Your task to perform on an android device: What is the news today? Image 0: 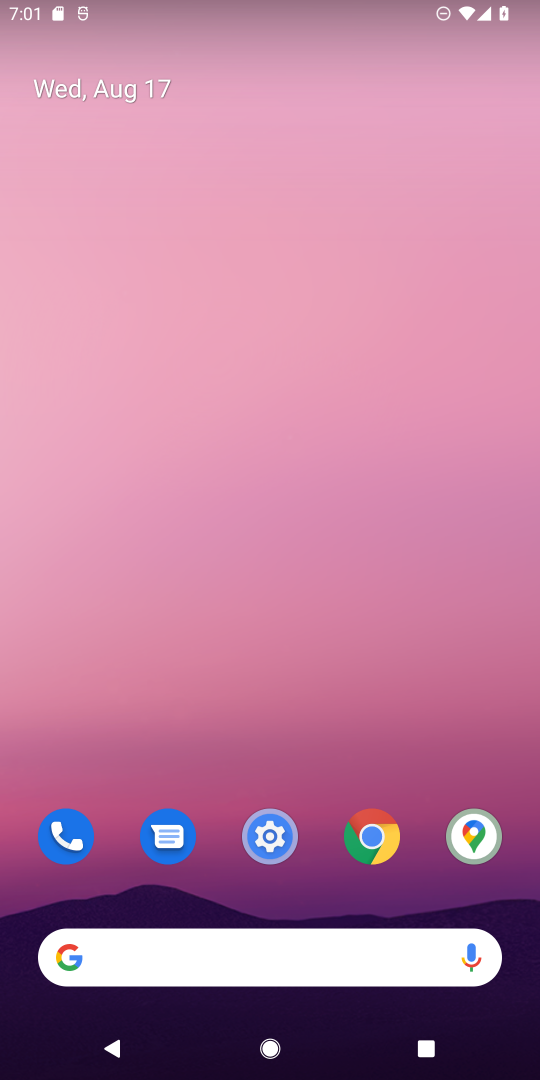
Step 0: drag from (358, 869) to (316, 165)
Your task to perform on an android device: What is the news today? Image 1: 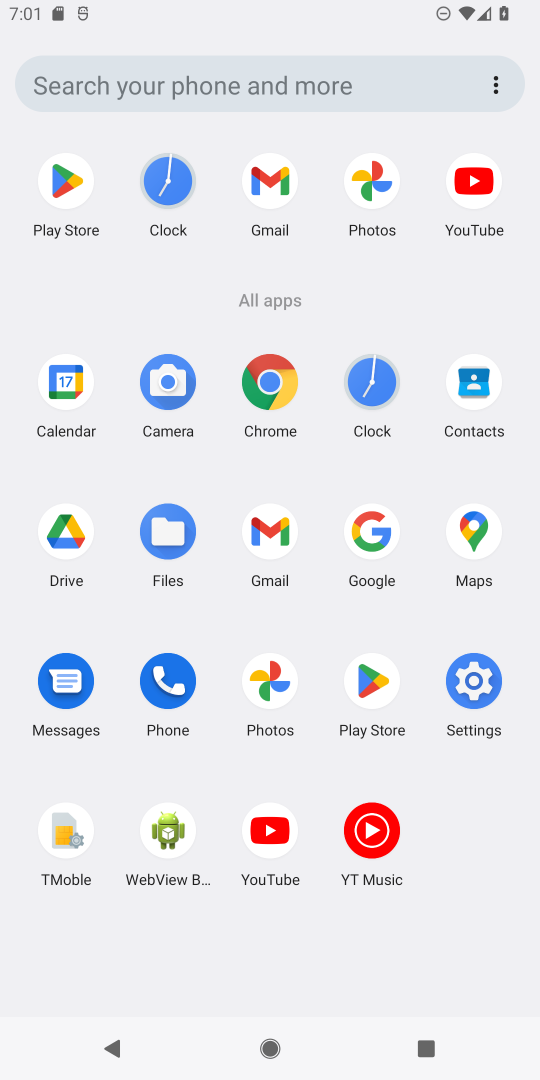
Step 1: click (264, 392)
Your task to perform on an android device: What is the news today? Image 2: 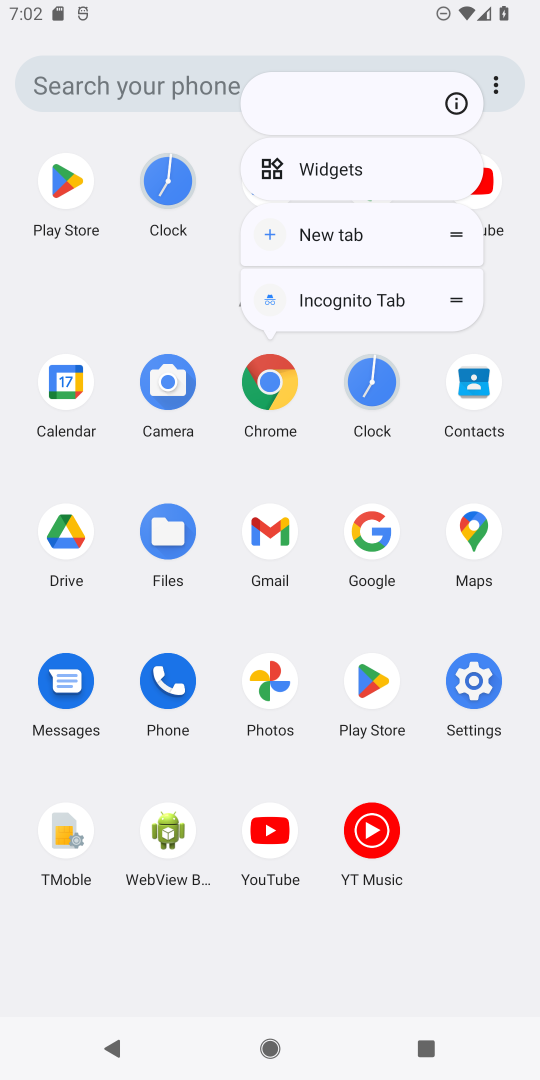
Step 2: click (277, 392)
Your task to perform on an android device: What is the news today? Image 3: 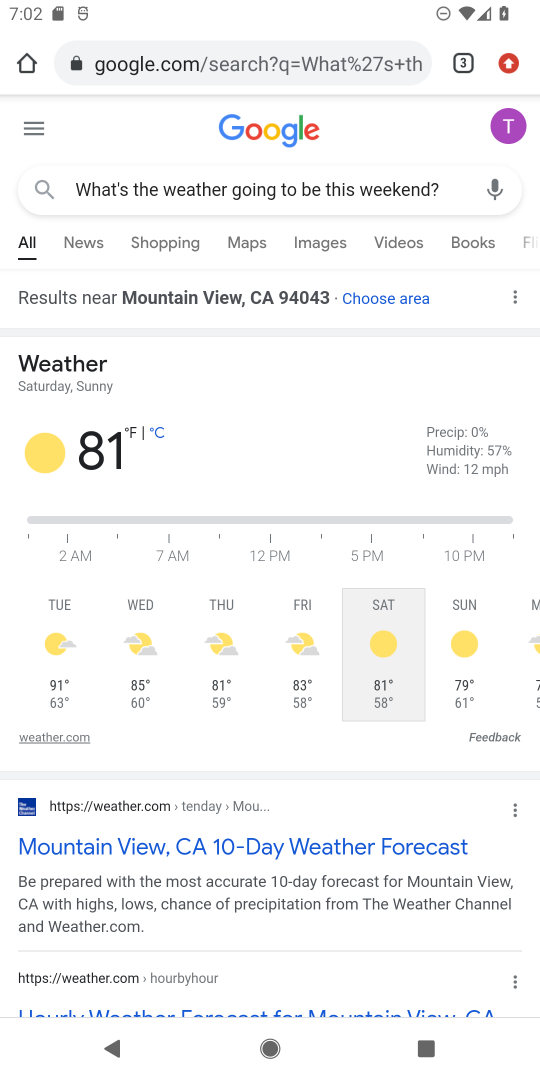
Step 3: click (506, 62)
Your task to perform on an android device: What is the news today? Image 4: 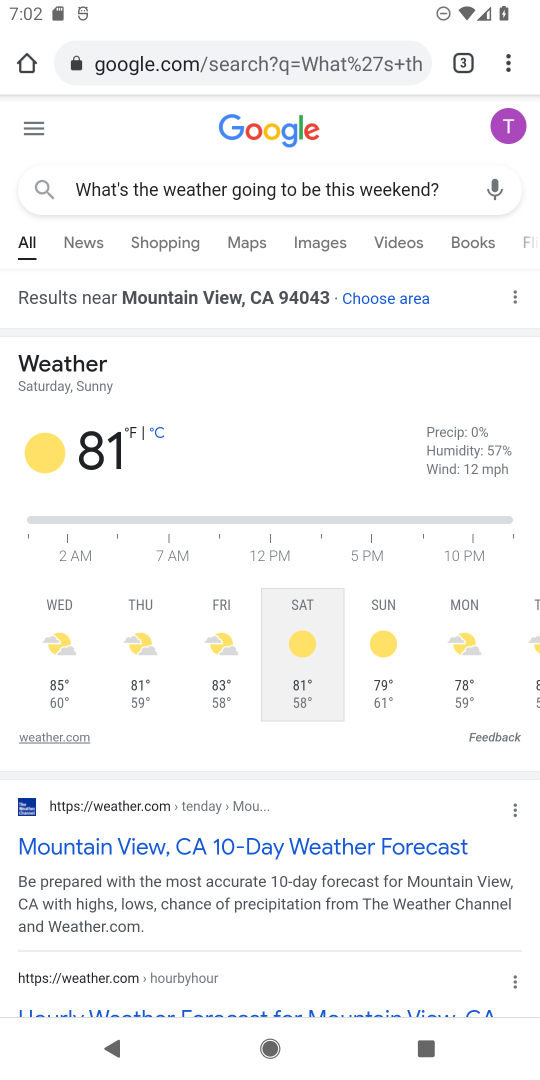
Step 4: click (508, 62)
Your task to perform on an android device: What is the news today? Image 5: 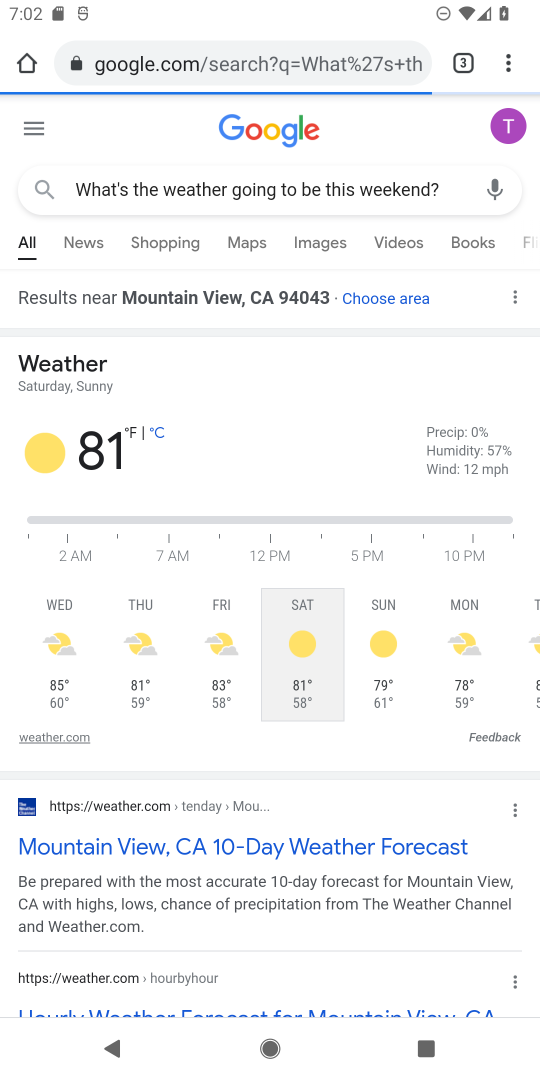
Step 5: click (508, 57)
Your task to perform on an android device: What is the news today? Image 6: 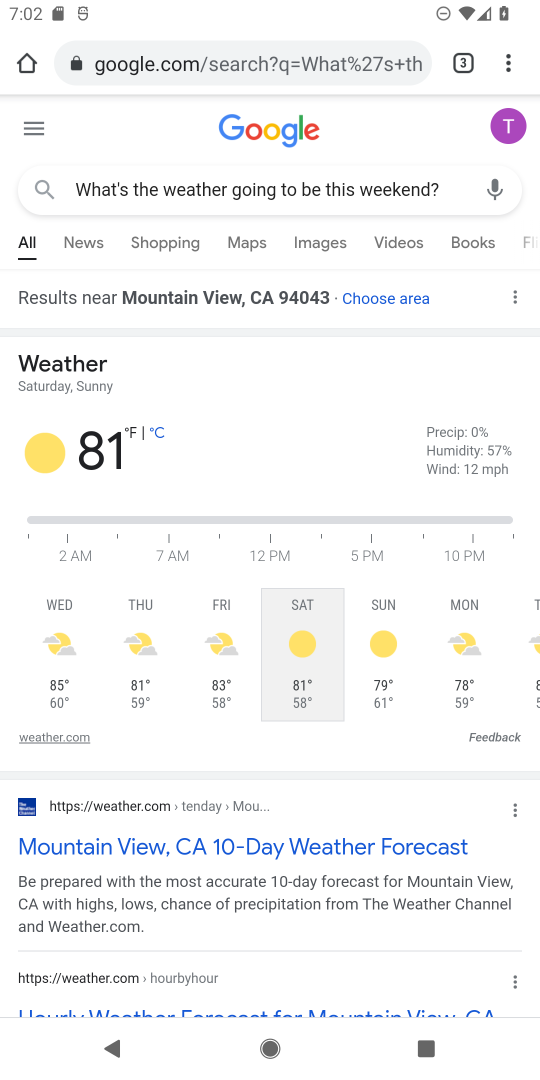
Step 6: click (501, 57)
Your task to perform on an android device: What is the news today? Image 7: 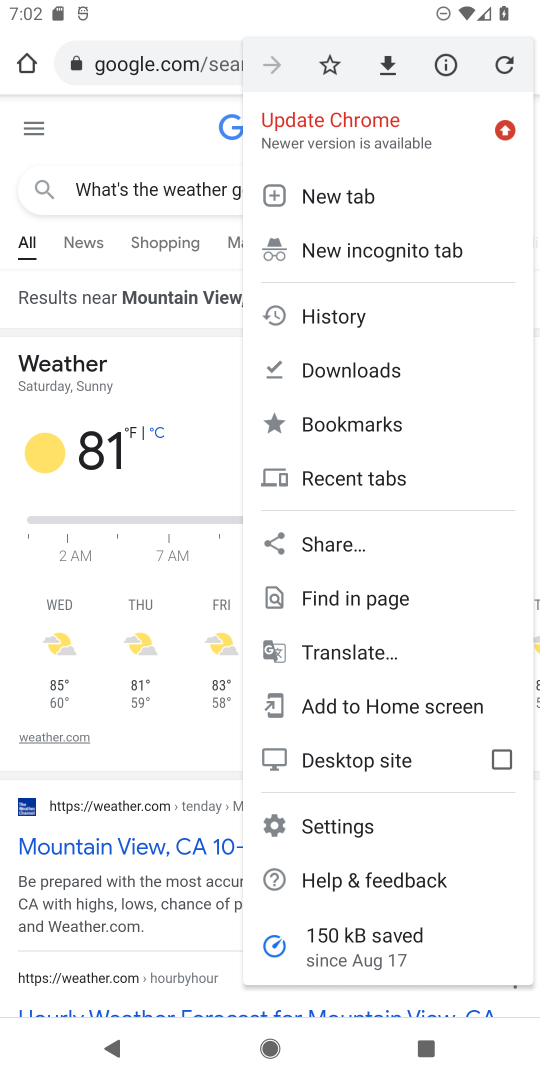
Step 7: click (373, 180)
Your task to perform on an android device: What is the news today? Image 8: 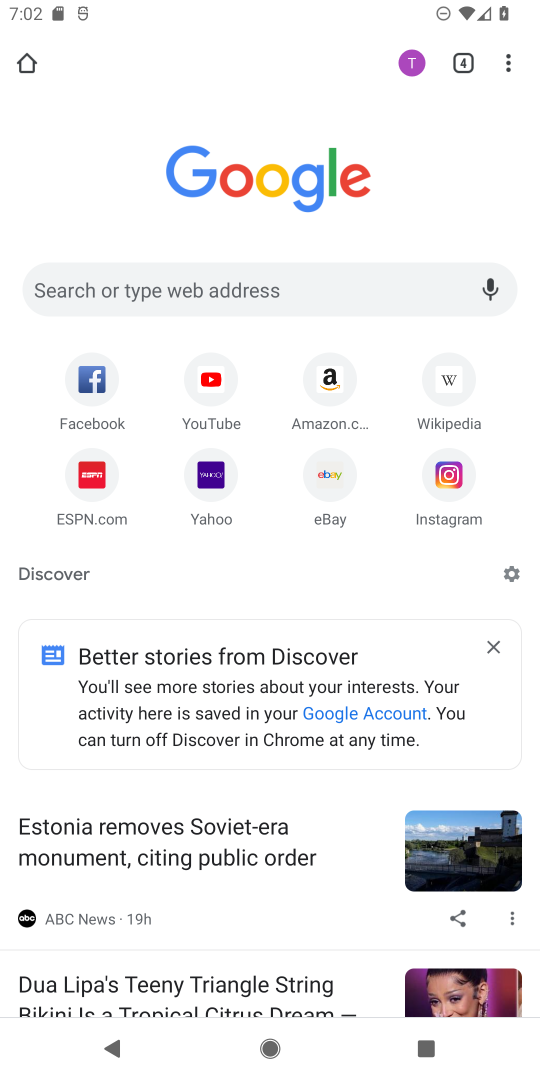
Step 8: click (294, 271)
Your task to perform on an android device: What is the news today? Image 9: 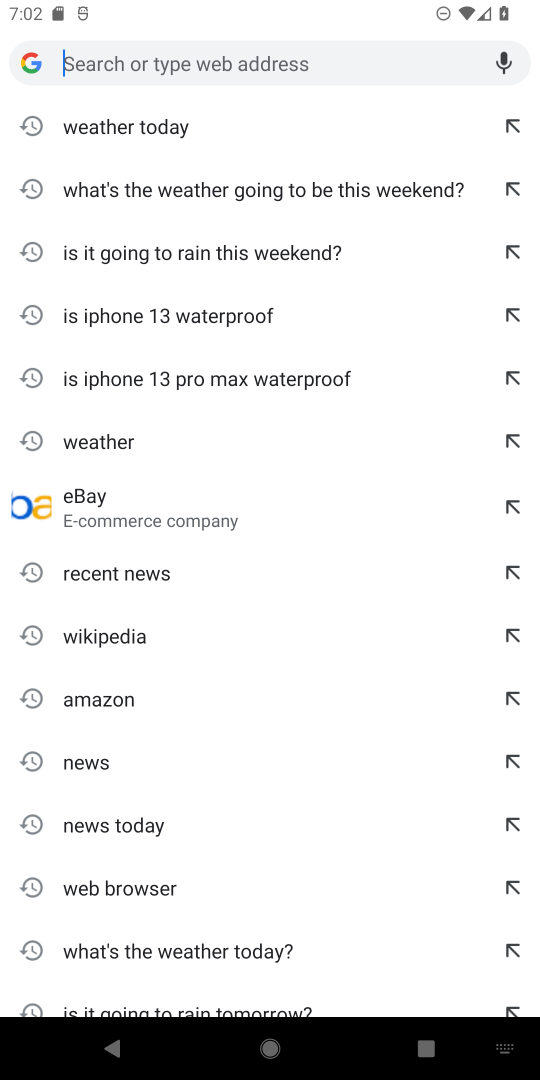
Step 9: type "What is the news today "
Your task to perform on an android device: What is the news today? Image 10: 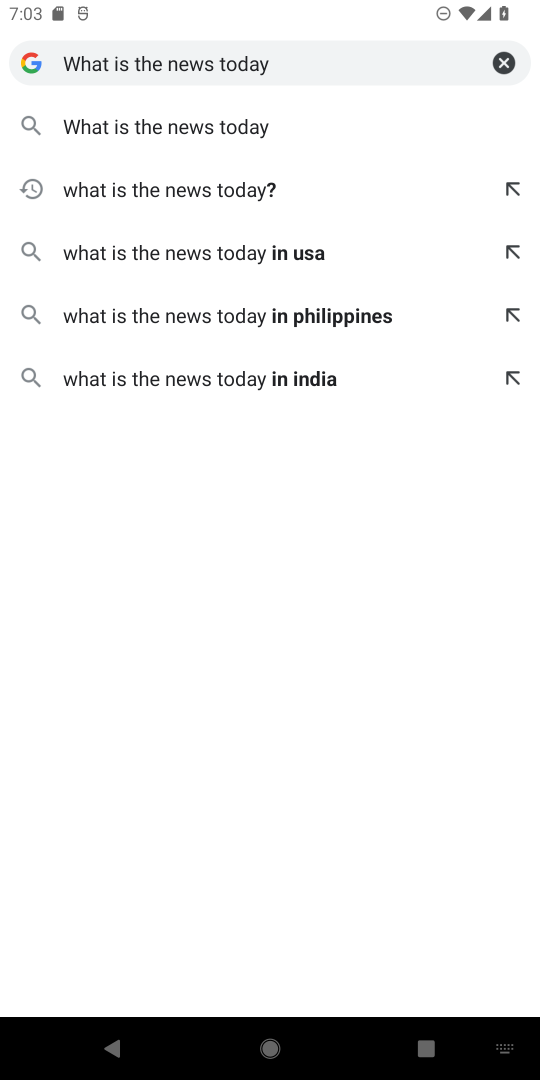
Step 10: click (183, 121)
Your task to perform on an android device: What is the news today? Image 11: 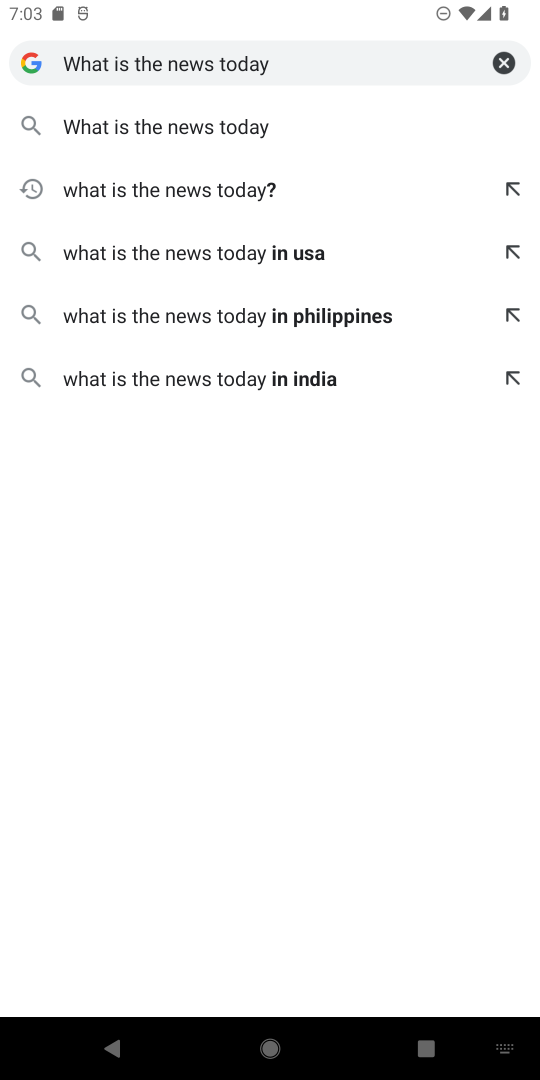
Step 11: click (183, 121)
Your task to perform on an android device: What is the news today? Image 12: 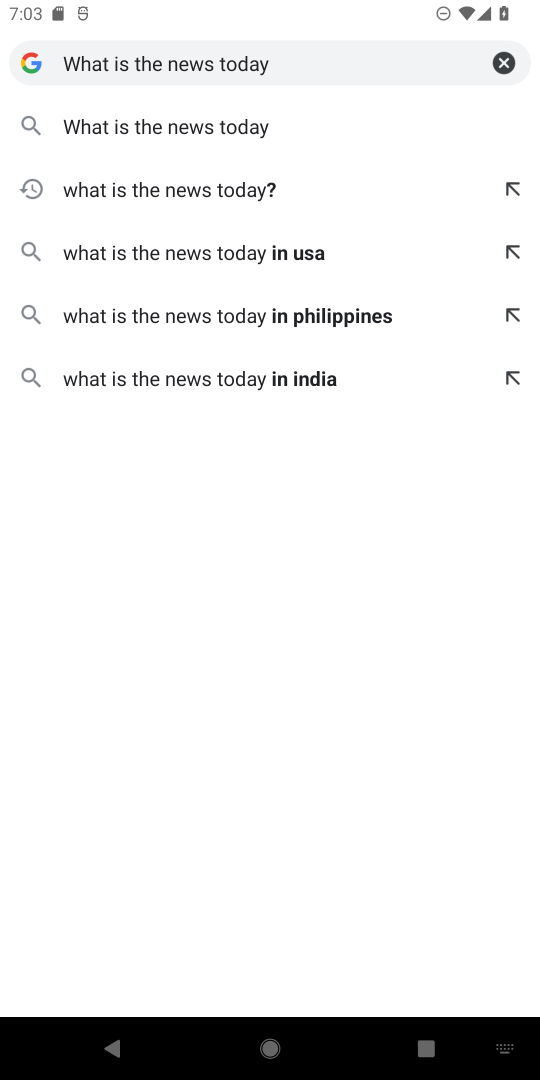
Step 12: click (179, 128)
Your task to perform on an android device: What is the news today? Image 13: 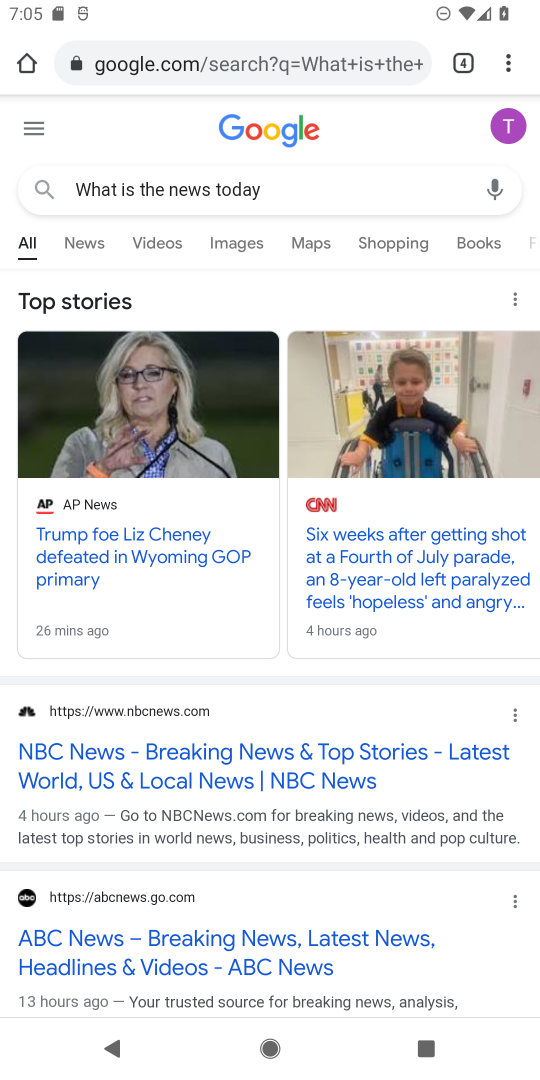
Step 13: task complete